Your task to perform on an android device: show emergency info Image 0: 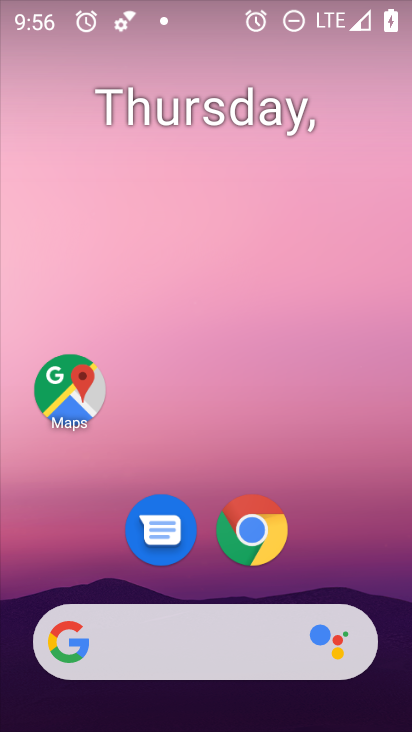
Step 0: drag from (339, 528) to (216, 47)
Your task to perform on an android device: show emergency info Image 1: 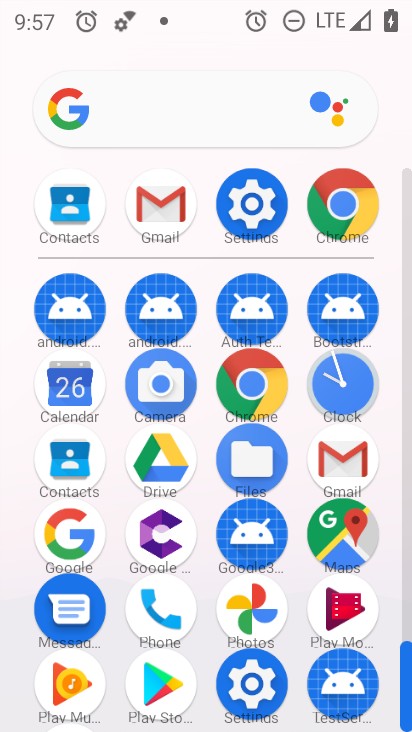
Step 1: drag from (16, 584) to (2, 266)
Your task to perform on an android device: show emergency info Image 2: 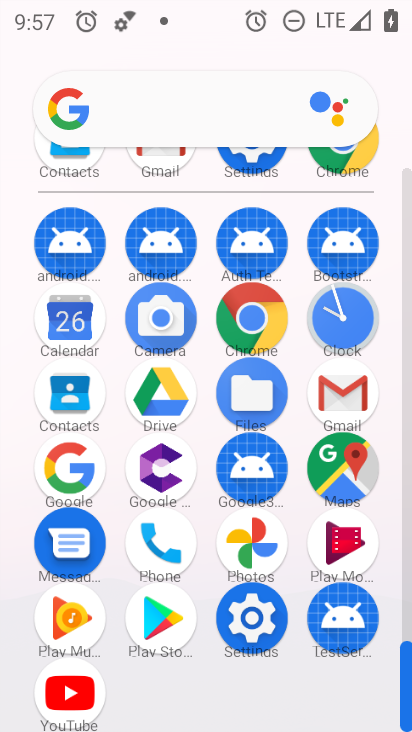
Step 2: click (250, 618)
Your task to perform on an android device: show emergency info Image 3: 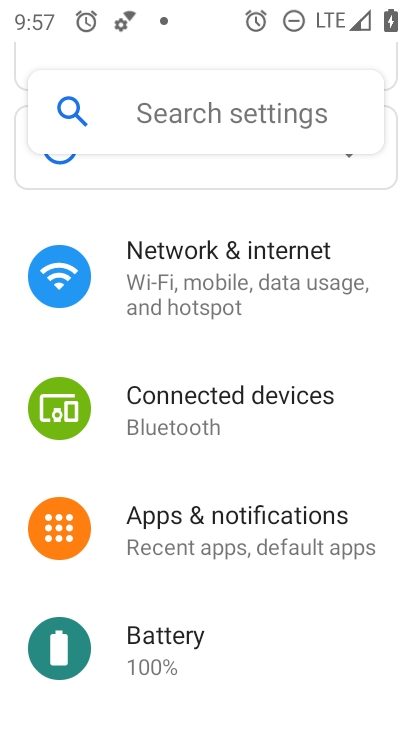
Step 3: drag from (277, 597) to (267, 182)
Your task to perform on an android device: show emergency info Image 4: 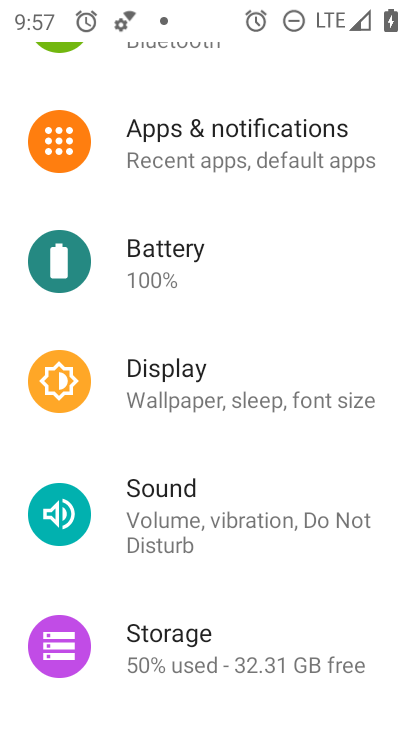
Step 4: drag from (294, 555) to (287, 156)
Your task to perform on an android device: show emergency info Image 5: 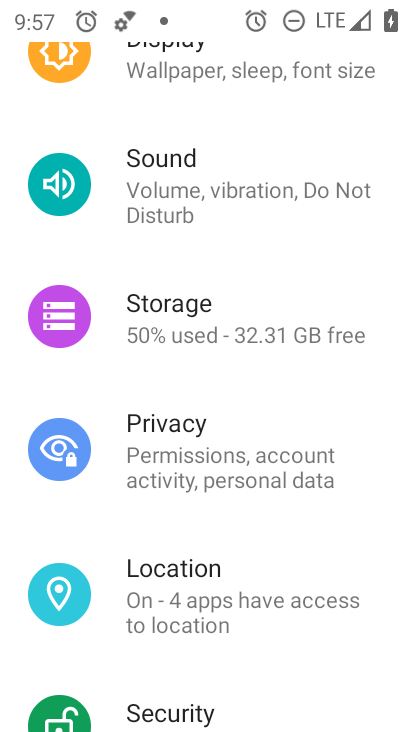
Step 5: drag from (285, 599) to (306, 173)
Your task to perform on an android device: show emergency info Image 6: 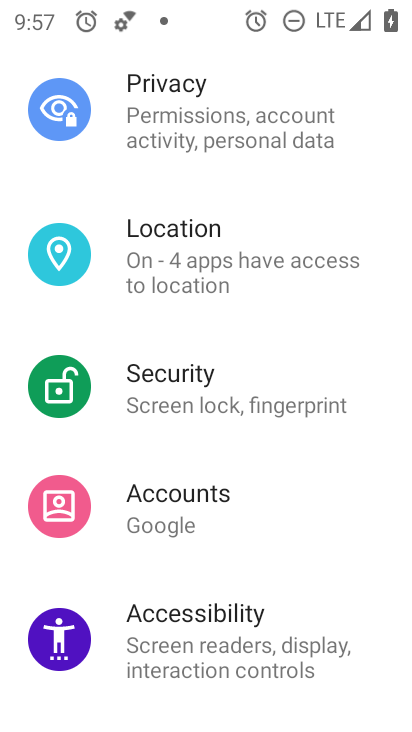
Step 6: drag from (302, 577) to (286, 226)
Your task to perform on an android device: show emergency info Image 7: 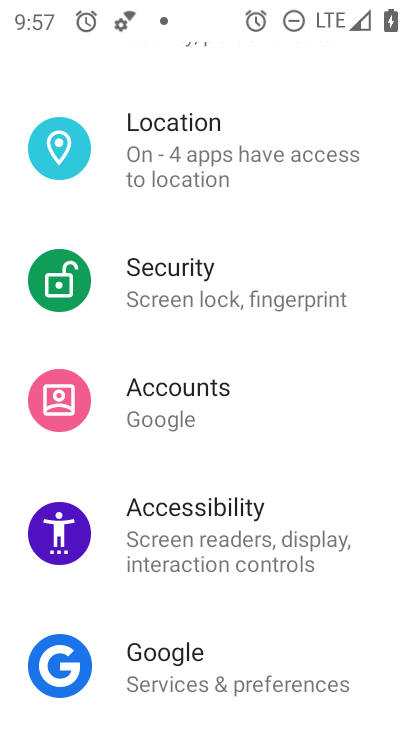
Step 7: drag from (244, 656) to (280, 201)
Your task to perform on an android device: show emergency info Image 8: 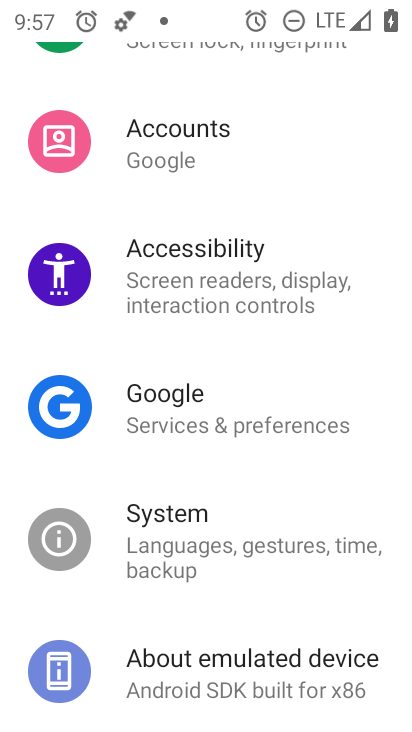
Step 8: click (262, 667)
Your task to perform on an android device: show emergency info Image 9: 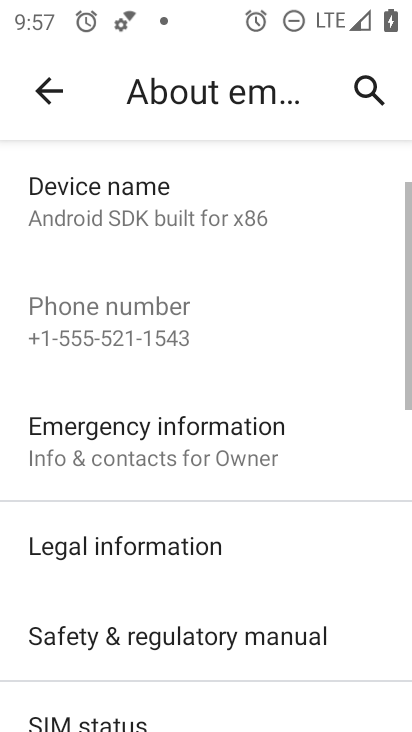
Step 9: task complete